Your task to perform on an android device: turn on javascript in the chrome app Image 0: 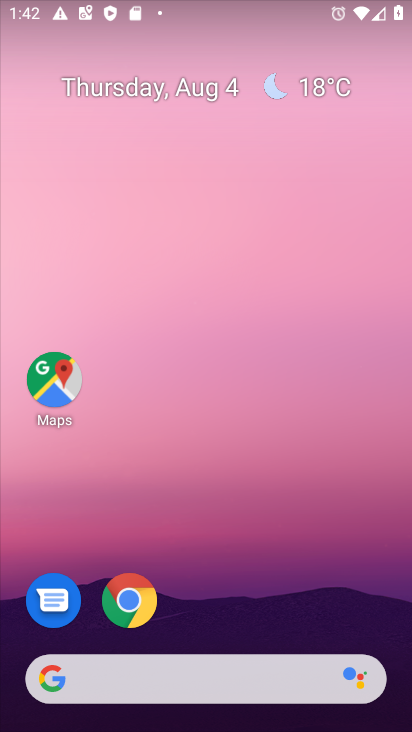
Step 0: drag from (145, 682) to (312, 176)
Your task to perform on an android device: turn on javascript in the chrome app Image 1: 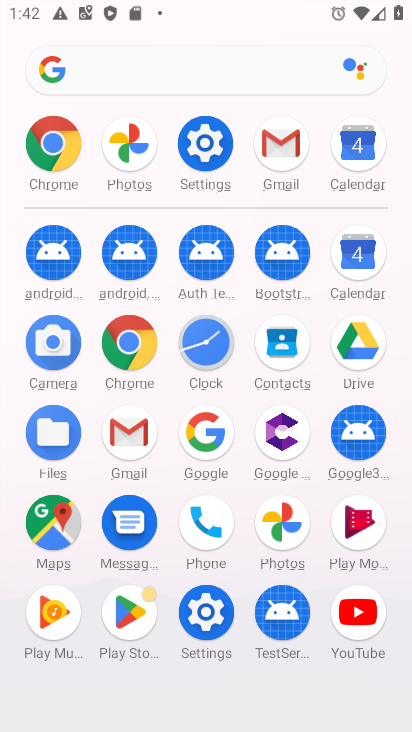
Step 1: click (59, 148)
Your task to perform on an android device: turn on javascript in the chrome app Image 2: 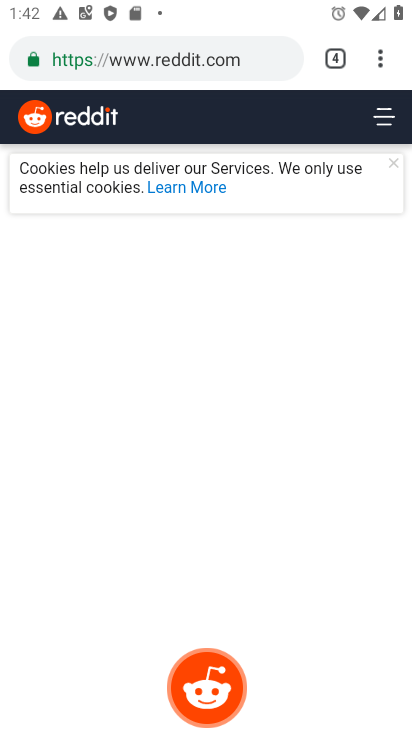
Step 2: drag from (382, 64) to (255, 627)
Your task to perform on an android device: turn on javascript in the chrome app Image 3: 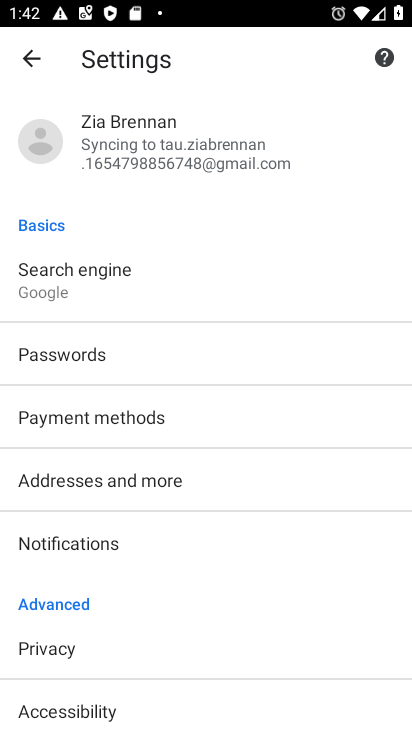
Step 3: drag from (195, 624) to (305, 163)
Your task to perform on an android device: turn on javascript in the chrome app Image 4: 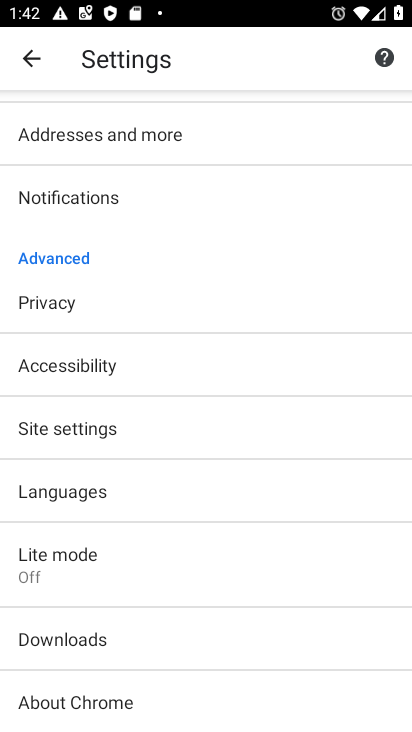
Step 4: click (102, 425)
Your task to perform on an android device: turn on javascript in the chrome app Image 5: 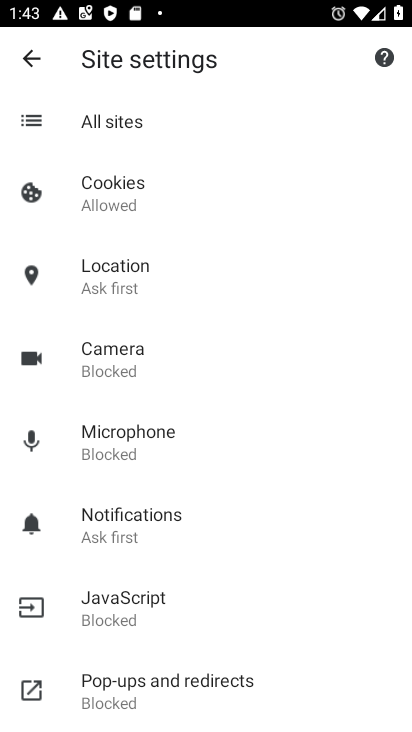
Step 5: click (147, 602)
Your task to perform on an android device: turn on javascript in the chrome app Image 6: 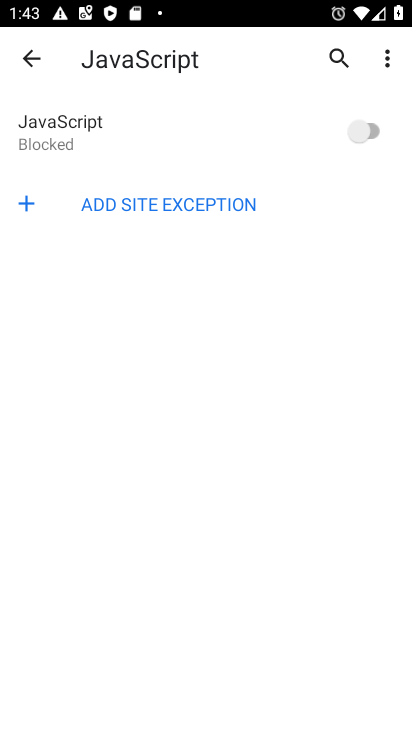
Step 6: click (373, 121)
Your task to perform on an android device: turn on javascript in the chrome app Image 7: 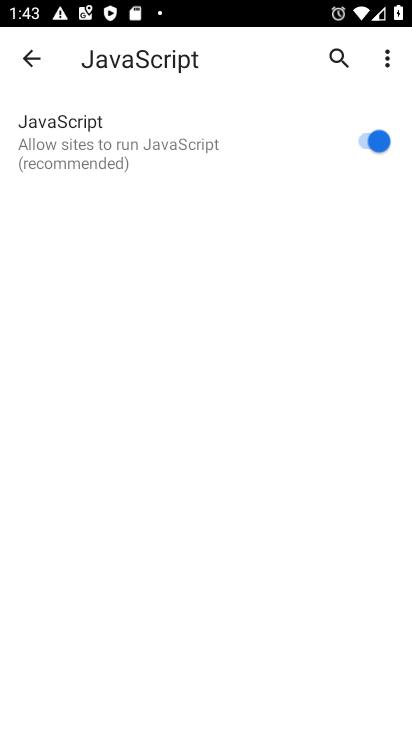
Step 7: task complete